Your task to perform on an android device: Open calendar and show me the first week of next month Image 0: 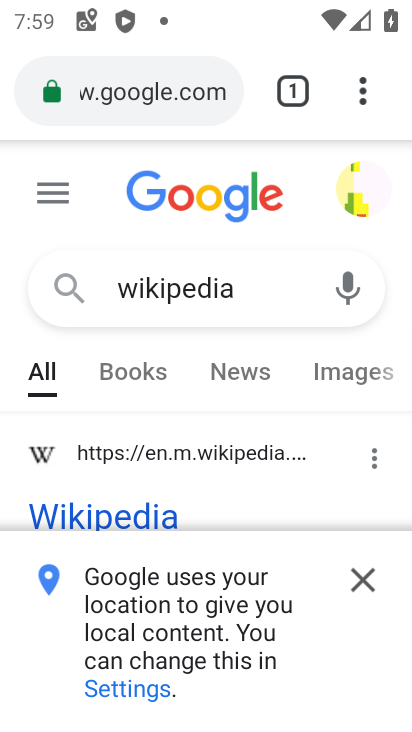
Step 0: press home button
Your task to perform on an android device: Open calendar and show me the first week of next month Image 1: 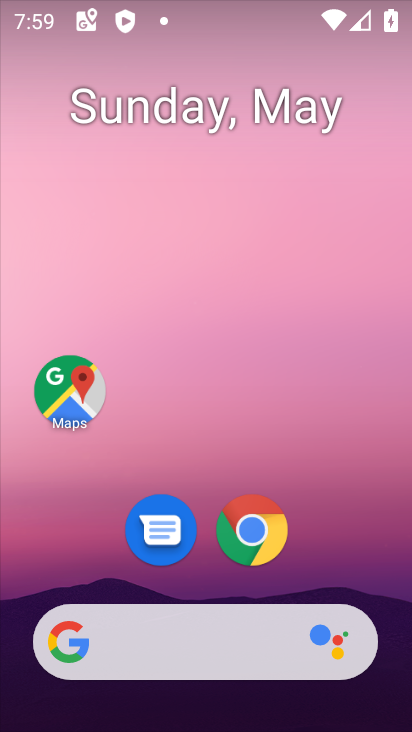
Step 1: drag from (330, 593) to (339, 3)
Your task to perform on an android device: Open calendar and show me the first week of next month Image 2: 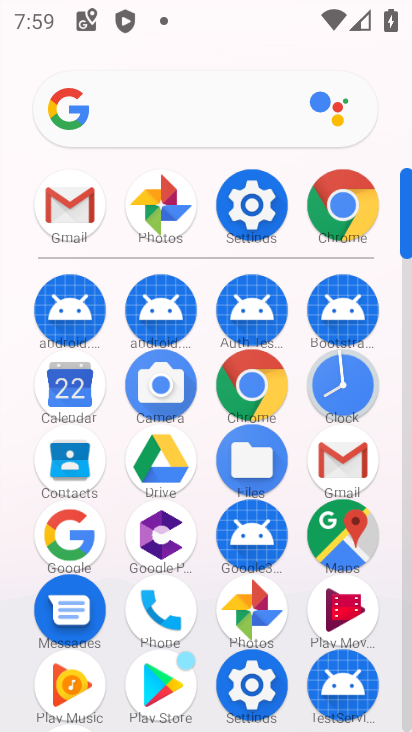
Step 2: click (71, 387)
Your task to perform on an android device: Open calendar and show me the first week of next month Image 3: 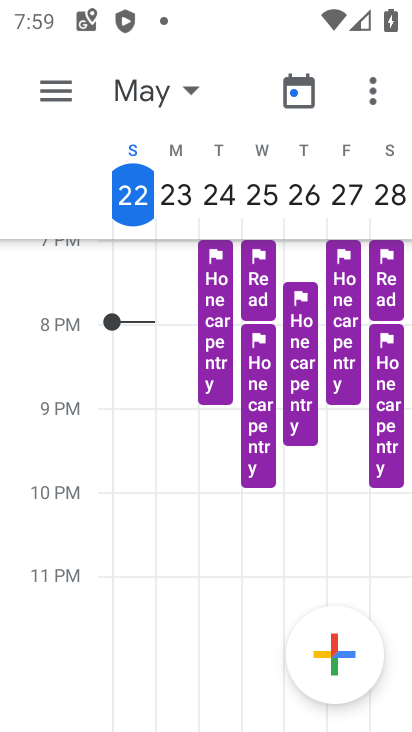
Step 3: click (190, 99)
Your task to perform on an android device: Open calendar and show me the first week of next month Image 4: 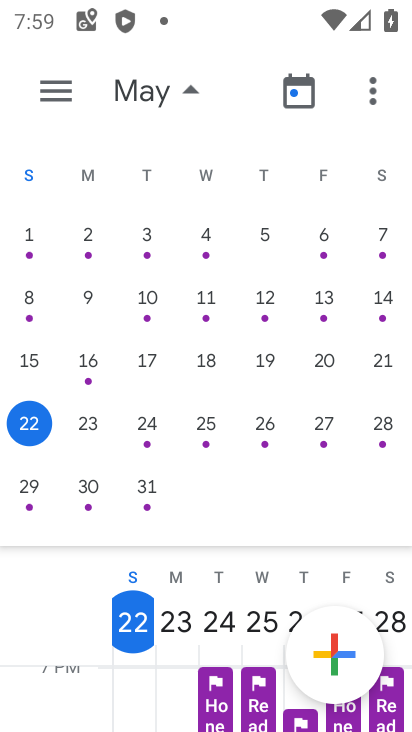
Step 4: task complete